Your task to perform on an android device: change the clock display to analog Image 0: 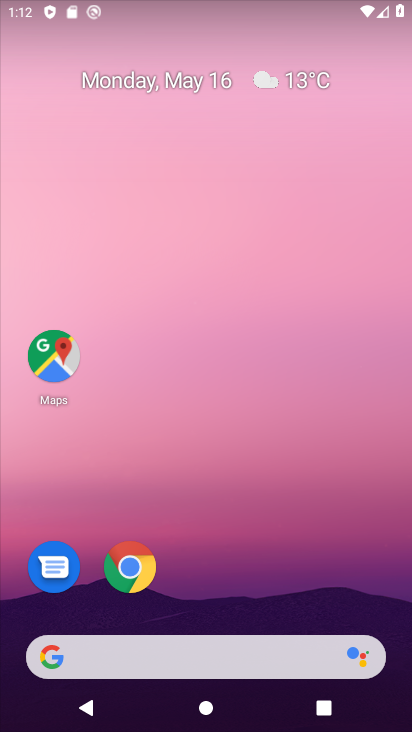
Step 0: drag from (231, 521) to (271, 149)
Your task to perform on an android device: change the clock display to analog Image 1: 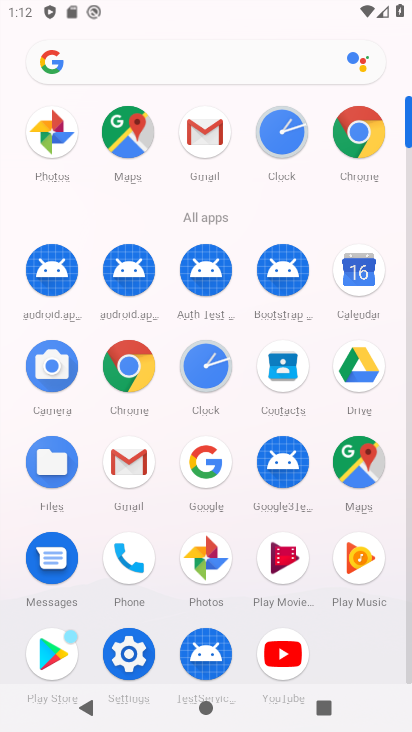
Step 1: click (195, 371)
Your task to perform on an android device: change the clock display to analog Image 2: 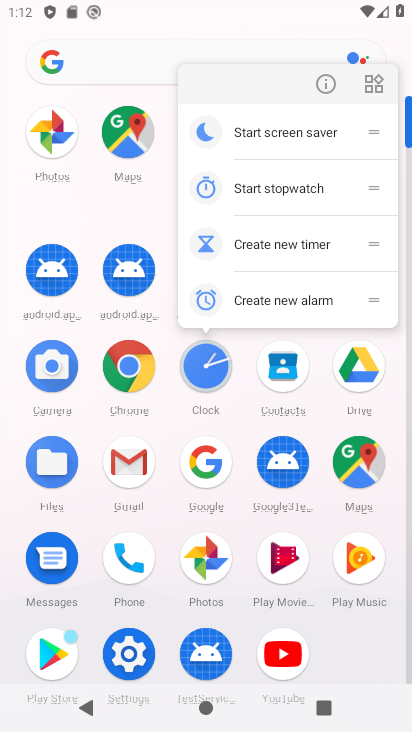
Step 2: click (213, 365)
Your task to perform on an android device: change the clock display to analog Image 3: 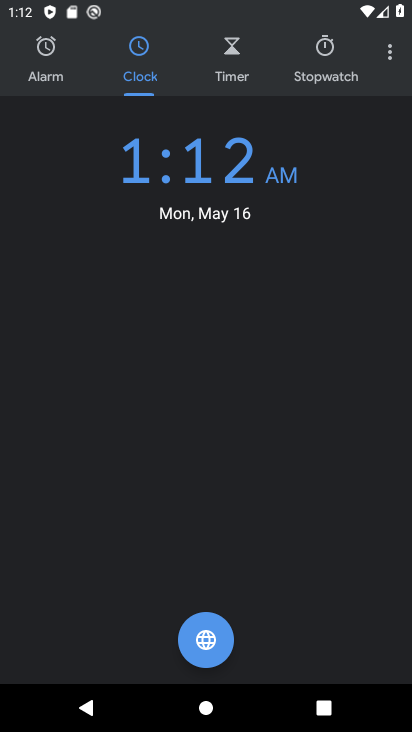
Step 3: click (398, 66)
Your task to perform on an android device: change the clock display to analog Image 4: 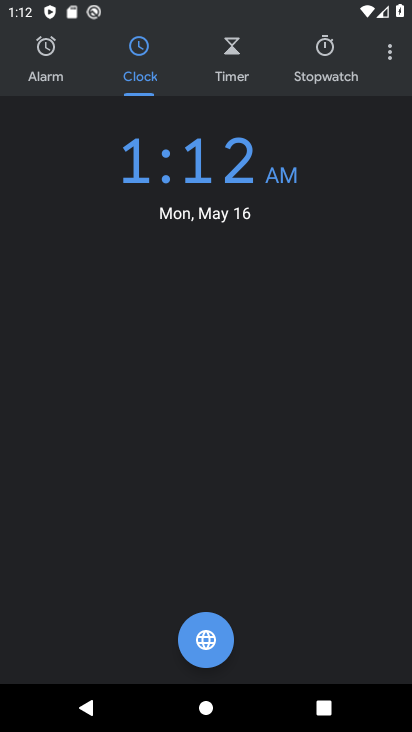
Step 4: click (392, 51)
Your task to perform on an android device: change the clock display to analog Image 5: 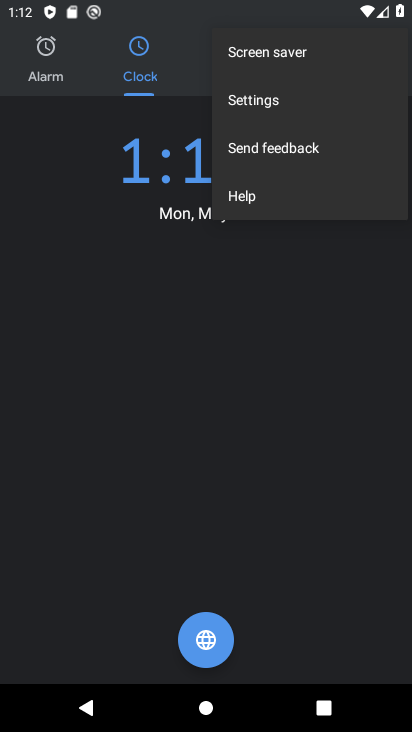
Step 5: click (374, 104)
Your task to perform on an android device: change the clock display to analog Image 6: 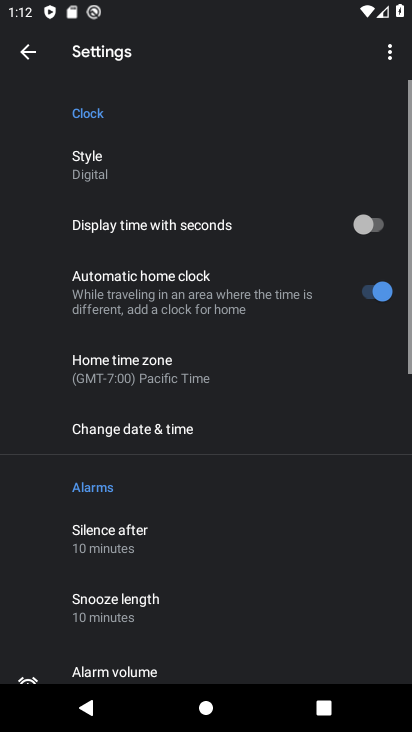
Step 6: click (261, 165)
Your task to perform on an android device: change the clock display to analog Image 7: 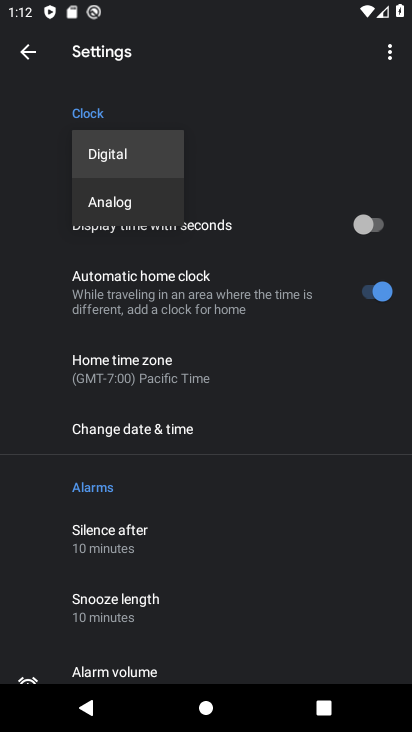
Step 7: click (116, 218)
Your task to perform on an android device: change the clock display to analog Image 8: 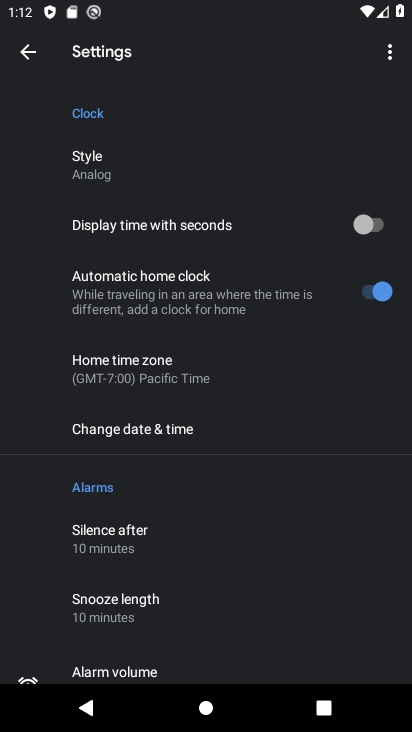
Step 8: task complete